Your task to perform on an android device: Go to location settings Image 0: 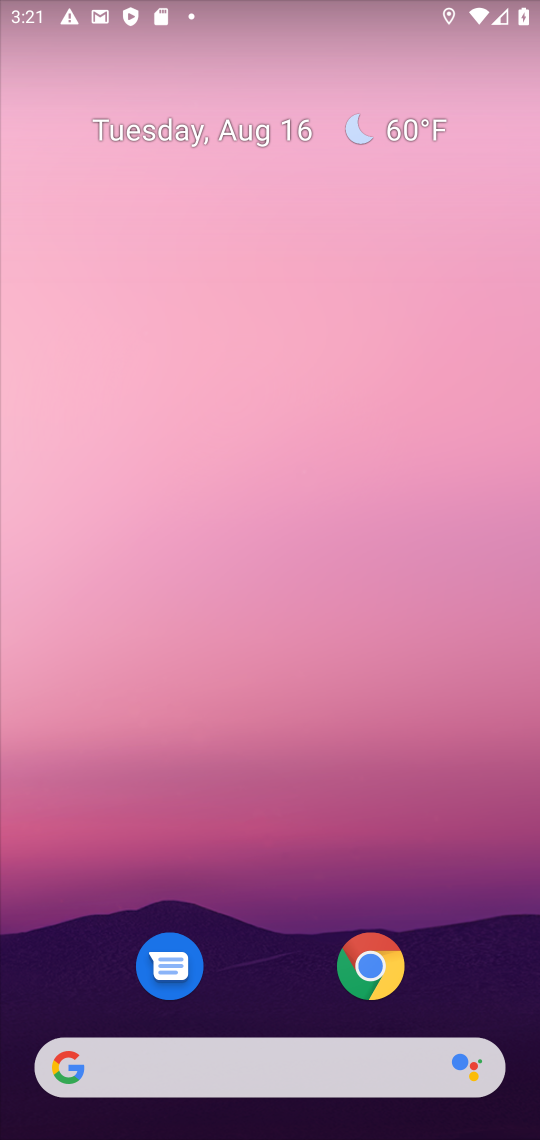
Step 0: drag from (21, 1079) to (431, 305)
Your task to perform on an android device: Go to location settings Image 1: 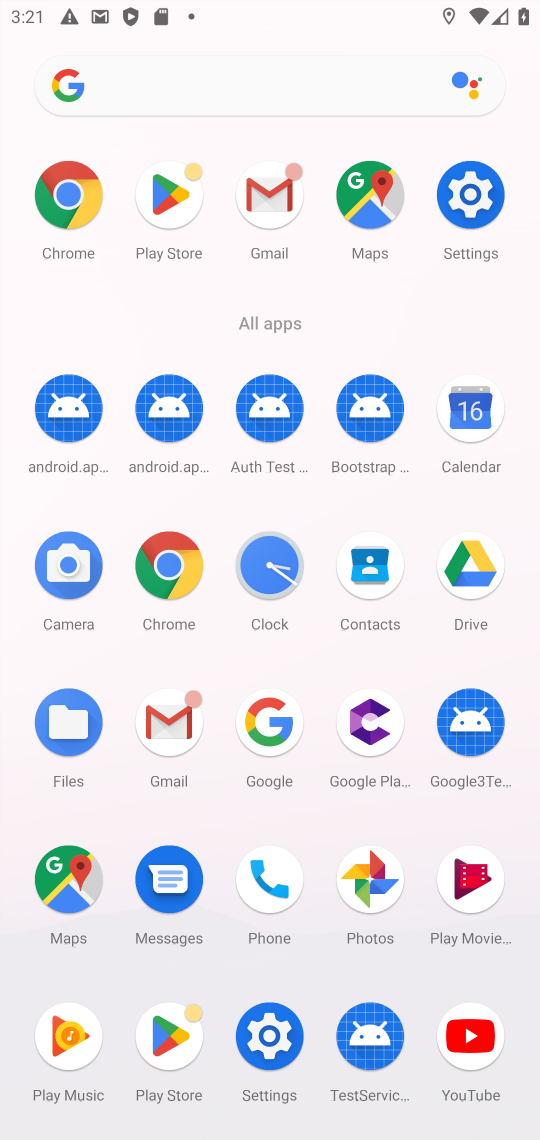
Step 1: click (263, 1060)
Your task to perform on an android device: Go to location settings Image 2: 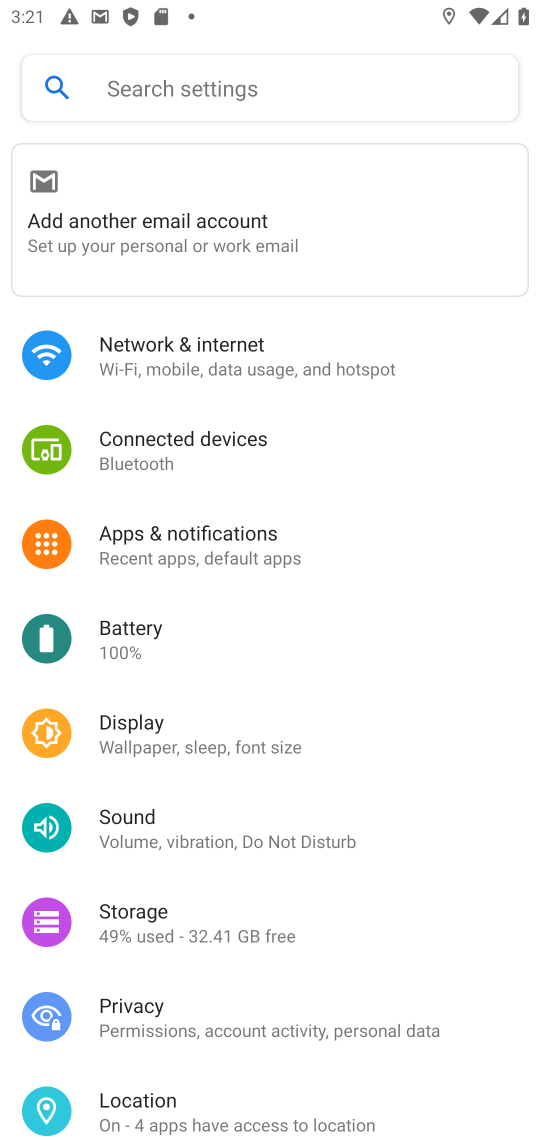
Step 2: drag from (470, 952) to (467, 325)
Your task to perform on an android device: Go to location settings Image 3: 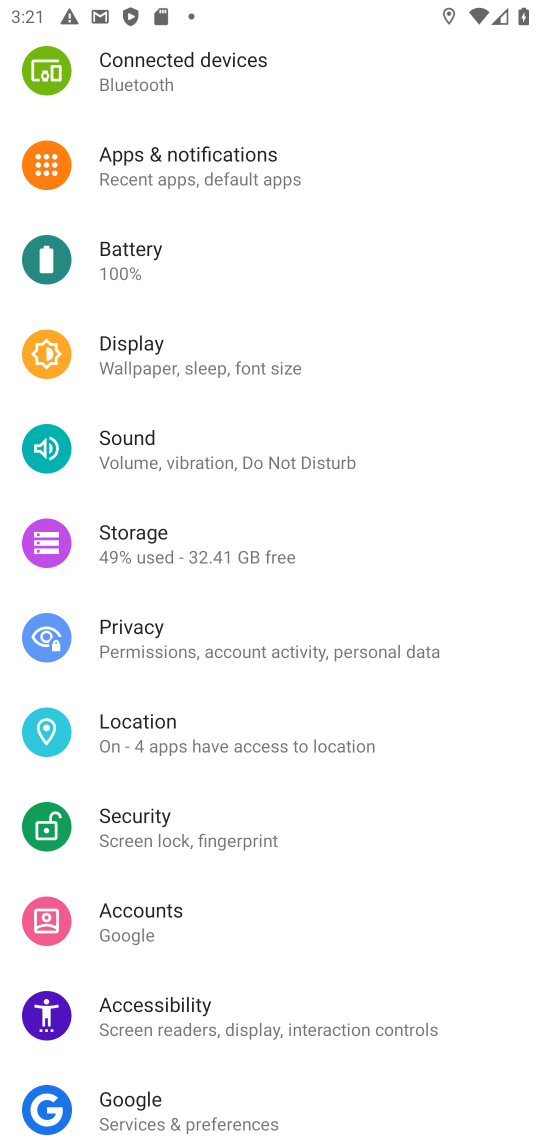
Step 3: click (167, 734)
Your task to perform on an android device: Go to location settings Image 4: 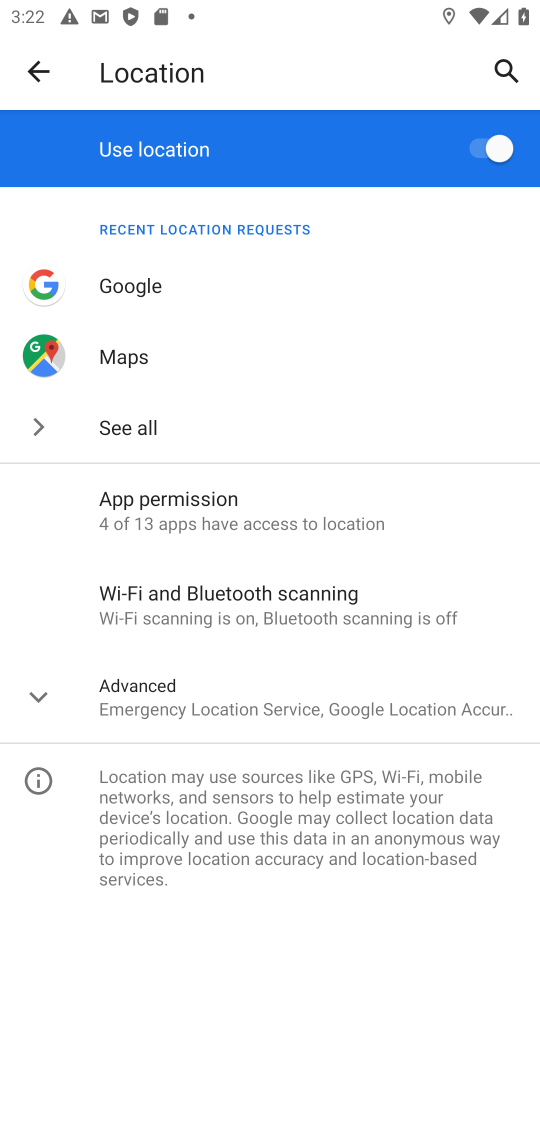
Step 4: task complete